Your task to perform on an android device: turn off location Image 0: 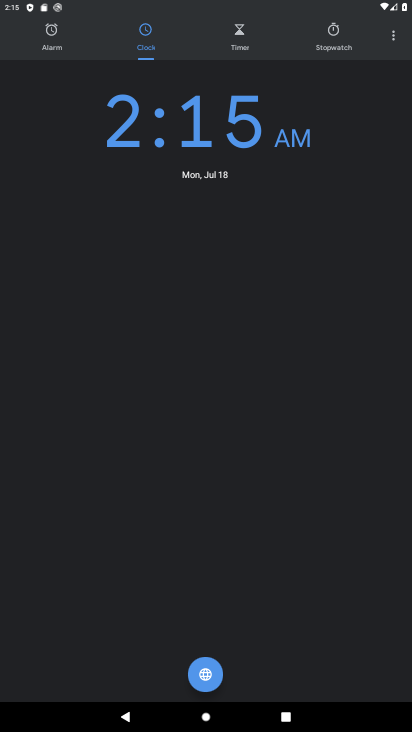
Step 0: press home button
Your task to perform on an android device: turn off location Image 1: 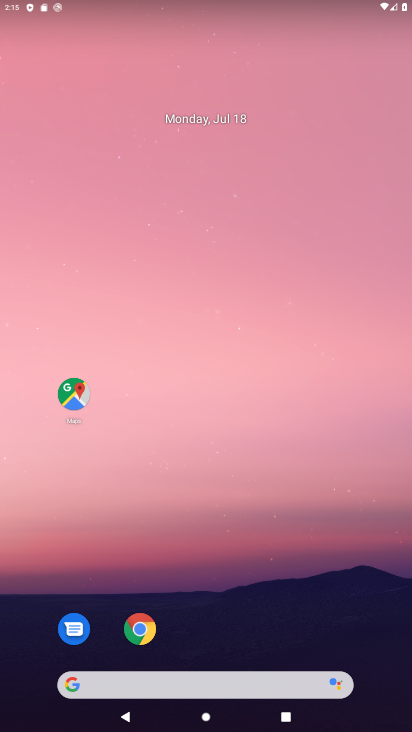
Step 1: drag from (215, 640) to (189, 79)
Your task to perform on an android device: turn off location Image 2: 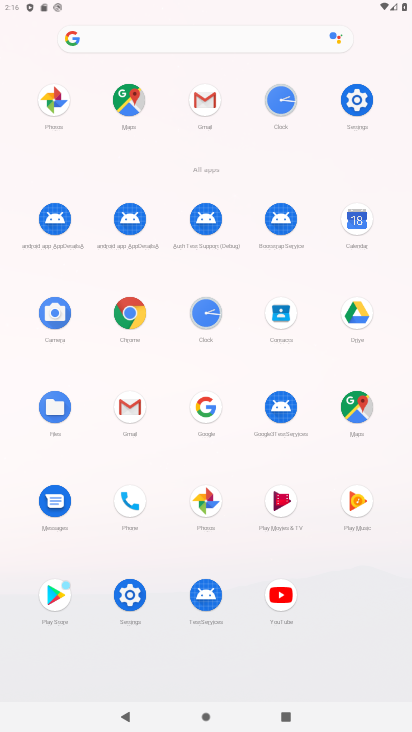
Step 2: click (116, 585)
Your task to perform on an android device: turn off location Image 3: 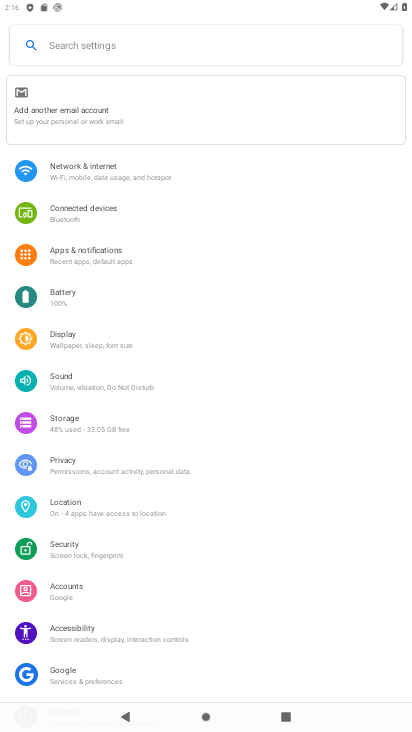
Step 3: click (75, 503)
Your task to perform on an android device: turn off location Image 4: 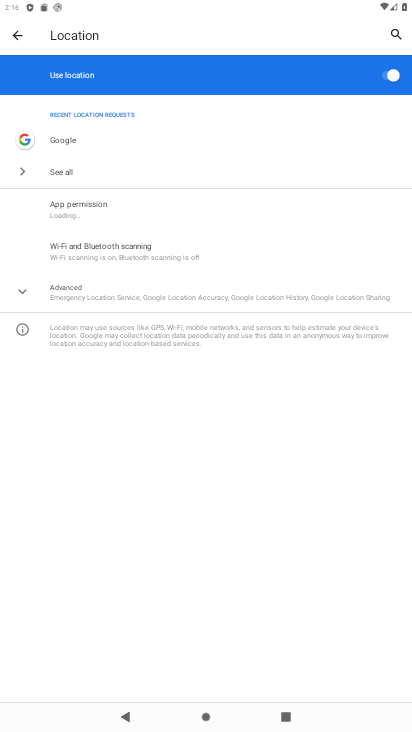
Step 4: click (383, 79)
Your task to perform on an android device: turn off location Image 5: 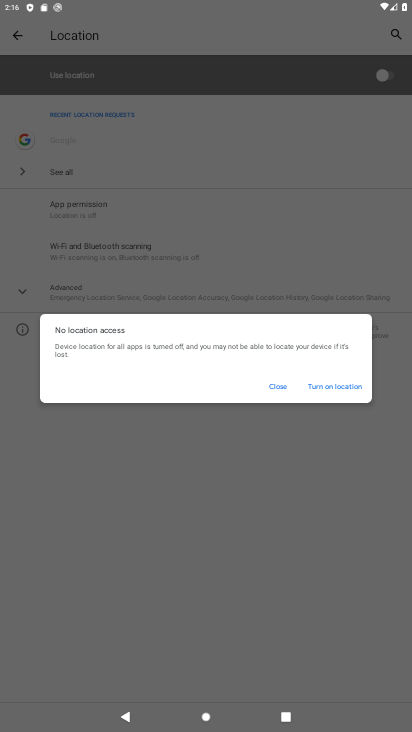
Step 5: task complete